Your task to perform on an android device: Search for "dell alienware" on newegg.com, select the first entry, and add it to the cart. Image 0: 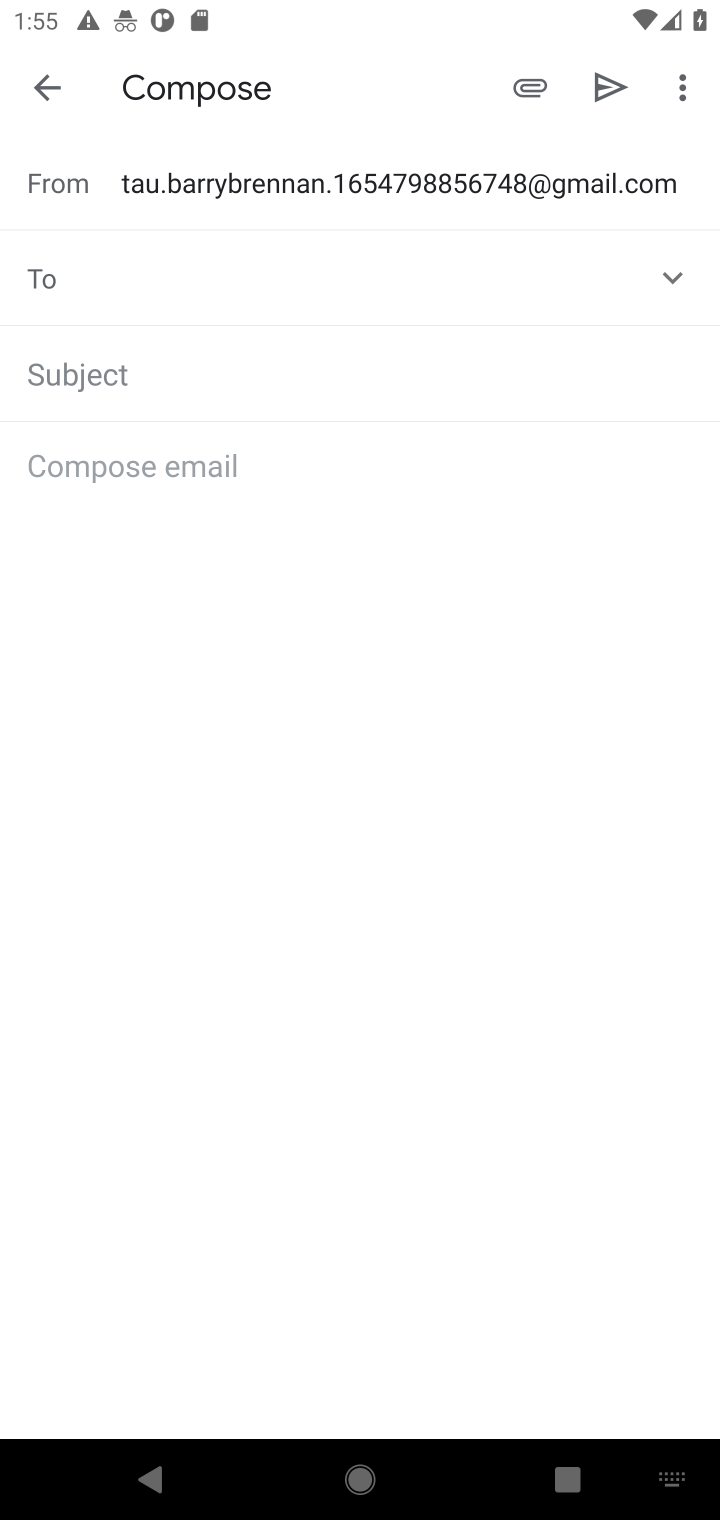
Step 0: press home button
Your task to perform on an android device: Search for "dell alienware" on newegg.com, select the first entry, and add it to the cart. Image 1: 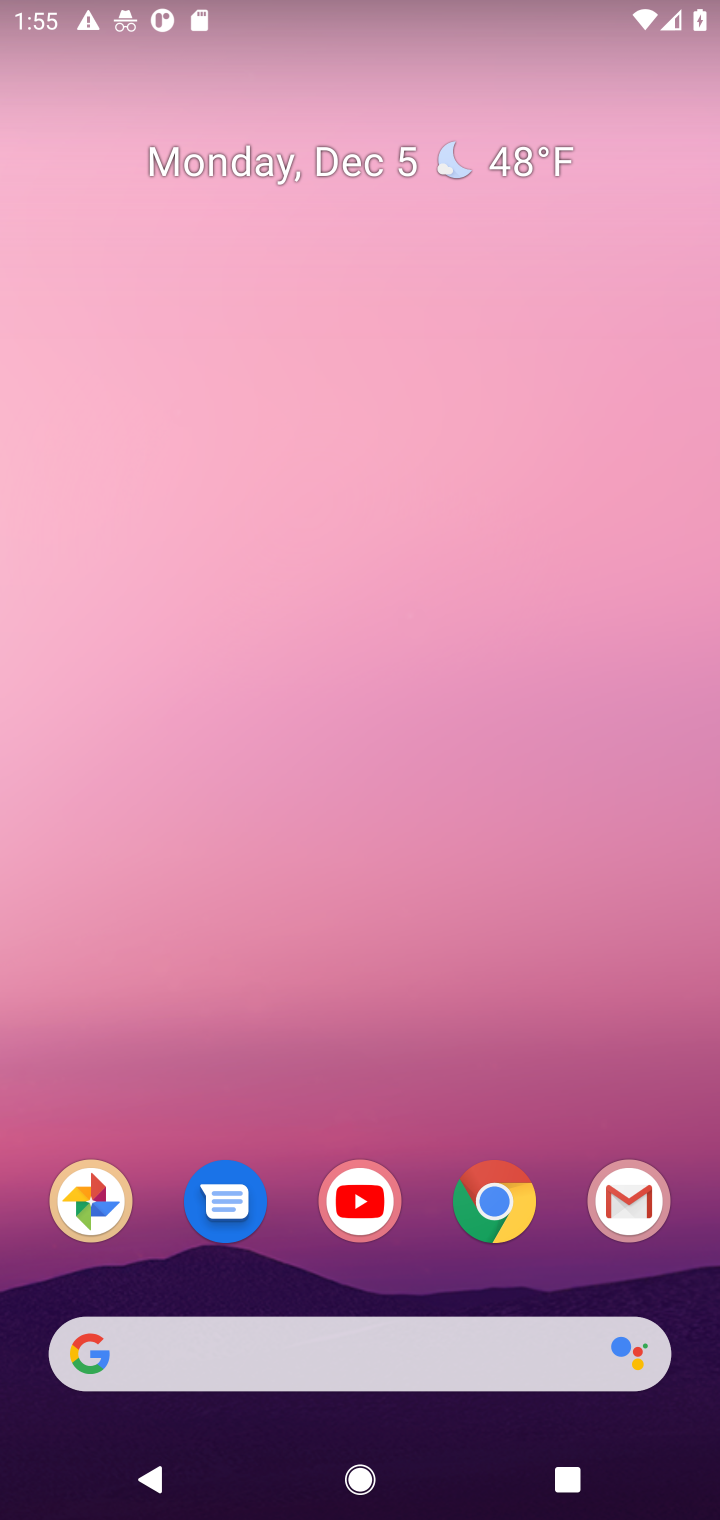
Step 1: click (505, 1207)
Your task to perform on an android device: Search for "dell alienware" on newegg.com, select the first entry, and add it to the cart. Image 2: 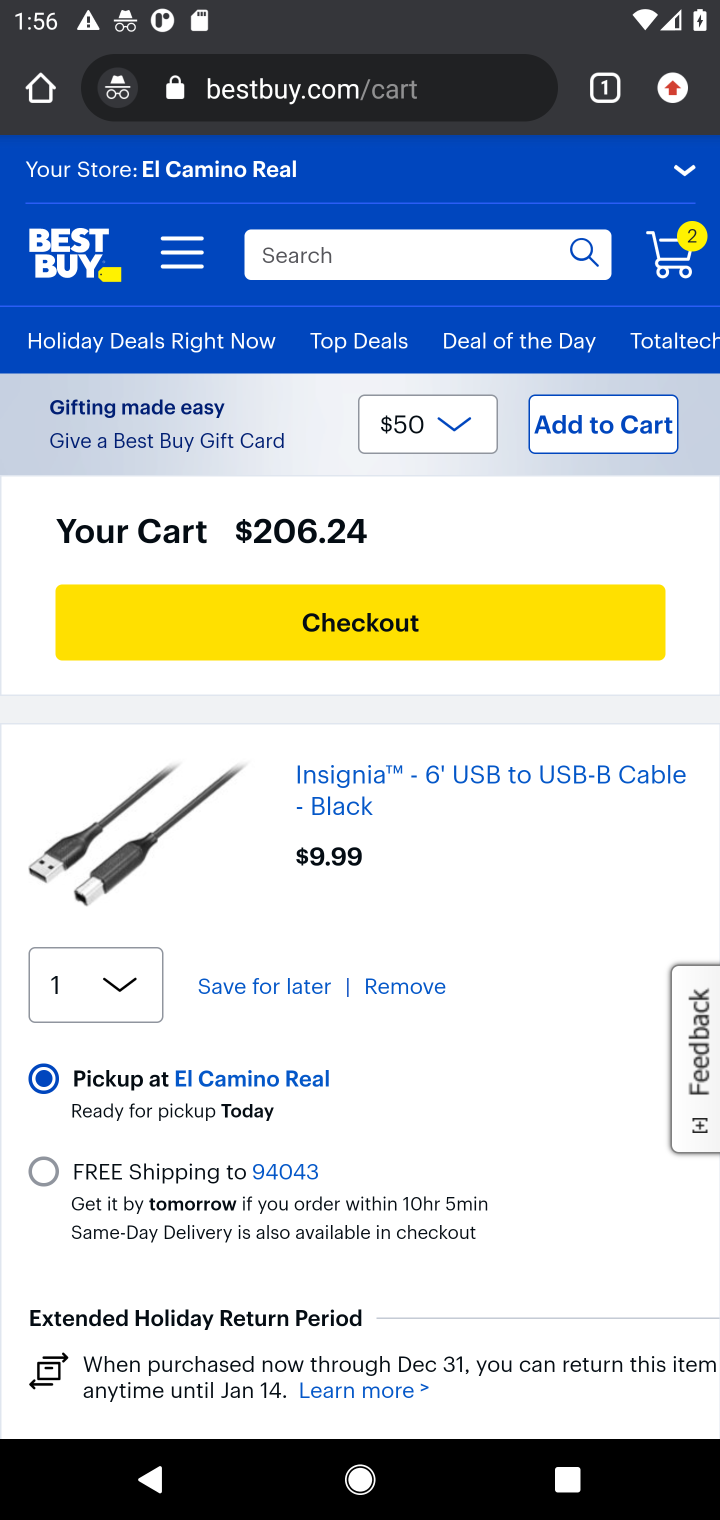
Step 2: click (331, 97)
Your task to perform on an android device: Search for "dell alienware" on newegg.com, select the first entry, and add it to the cart. Image 3: 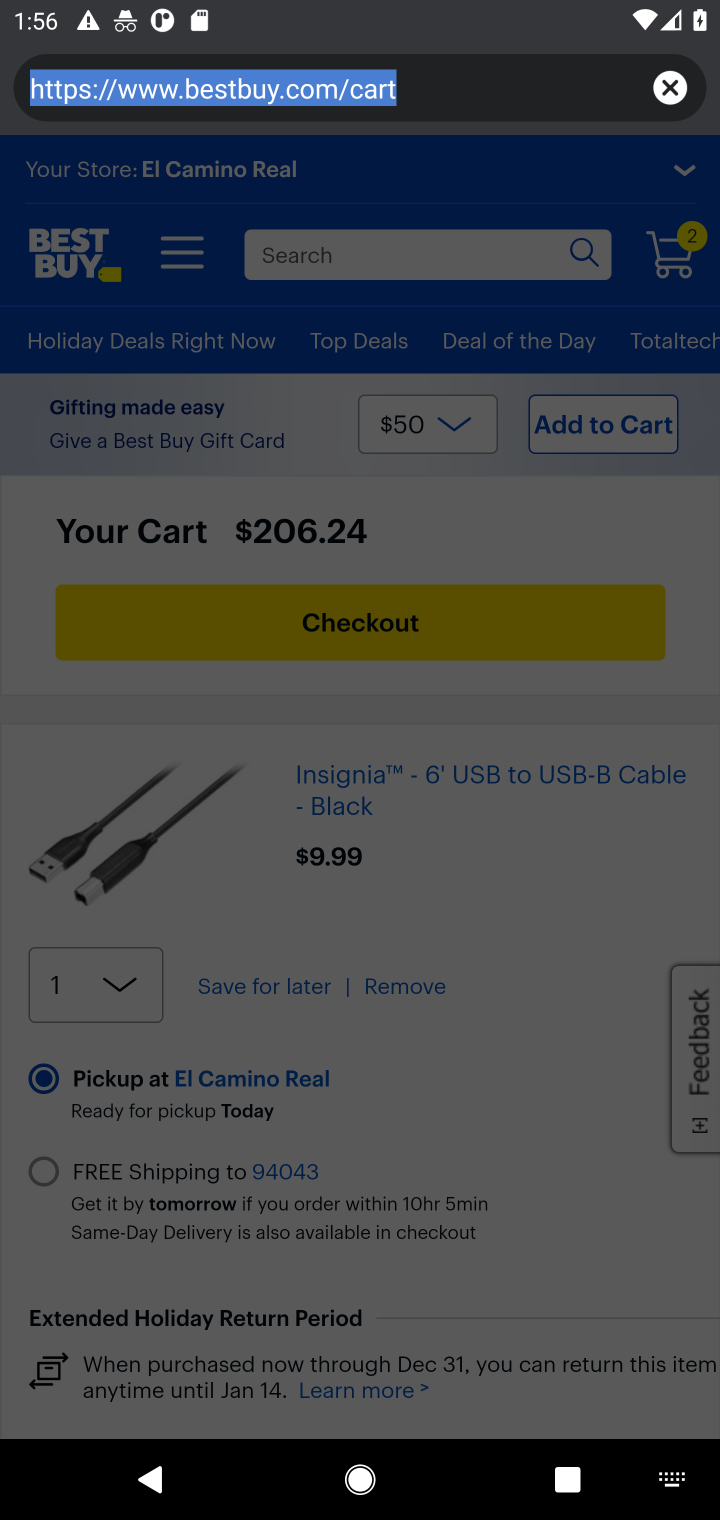
Step 3: click (658, 103)
Your task to perform on an android device: Search for "dell alienware" on newegg.com, select the first entry, and add it to the cart. Image 4: 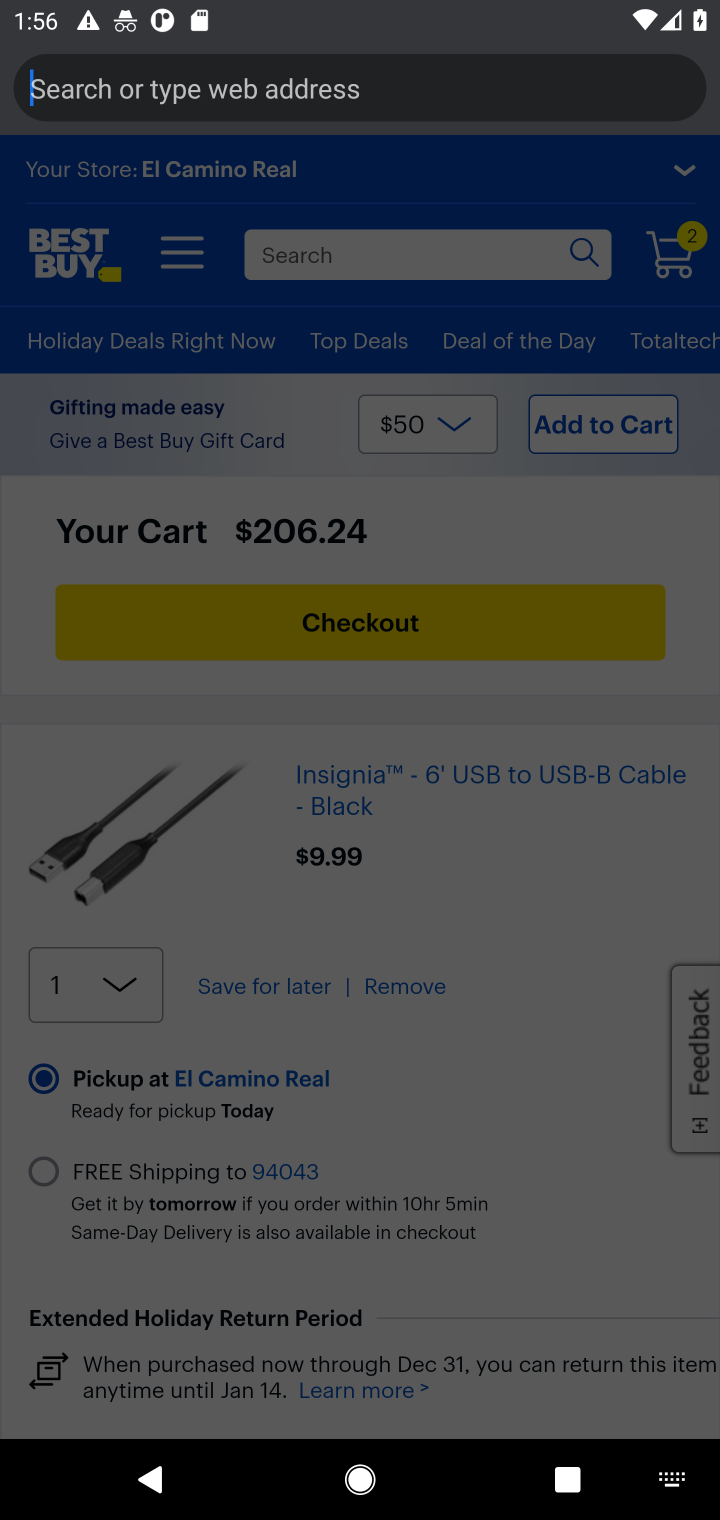
Step 4: type "newegg"
Your task to perform on an android device: Search for "dell alienware" on newegg.com, select the first entry, and add it to the cart. Image 5: 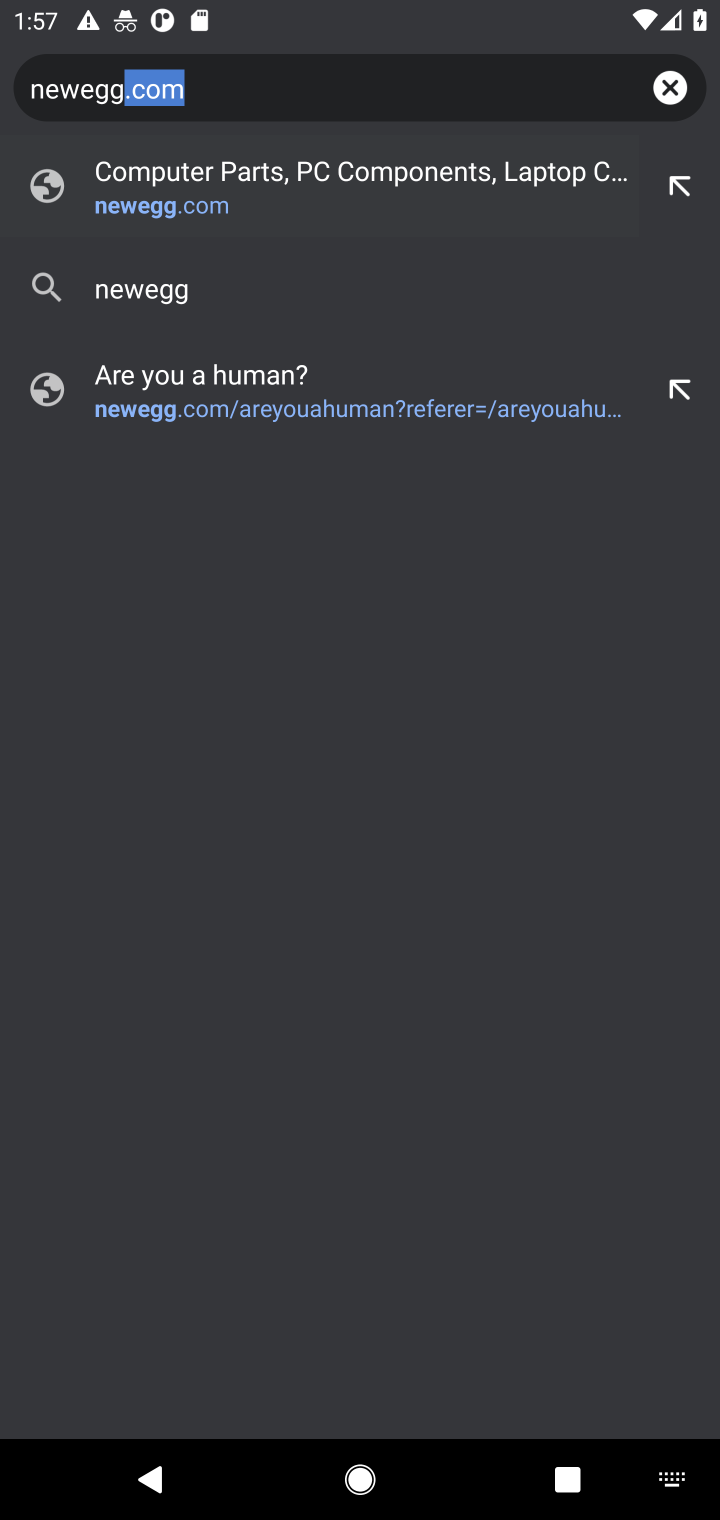
Step 5: click (230, 222)
Your task to perform on an android device: Search for "dell alienware" on newegg.com, select the first entry, and add it to the cart. Image 6: 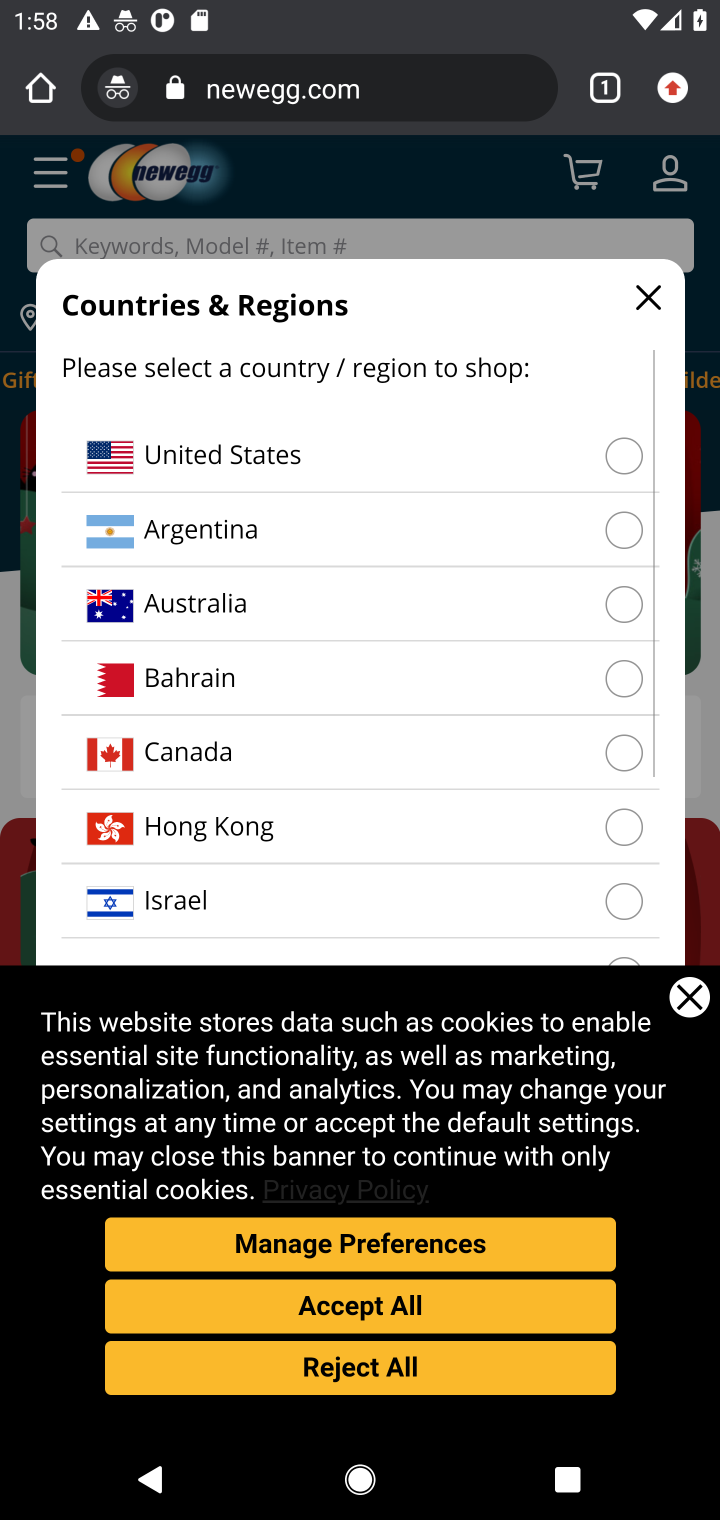
Step 6: click (526, 1294)
Your task to perform on an android device: Search for "dell alienware" on newegg.com, select the first entry, and add it to the cart. Image 7: 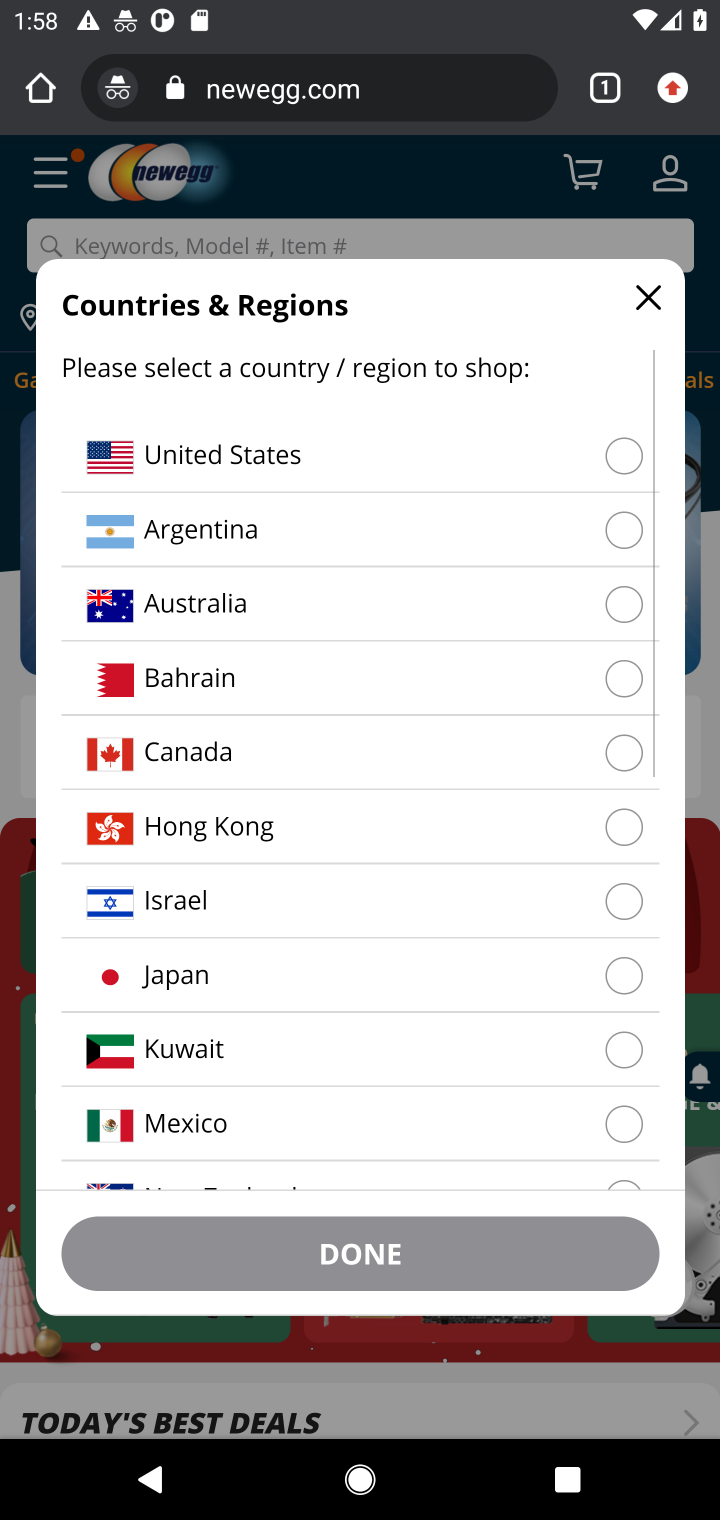
Step 7: click (376, 846)
Your task to perform on an android device: Search for "dell alienware" on newegg.com, select the first entry, and add it to the cart. Image 8: 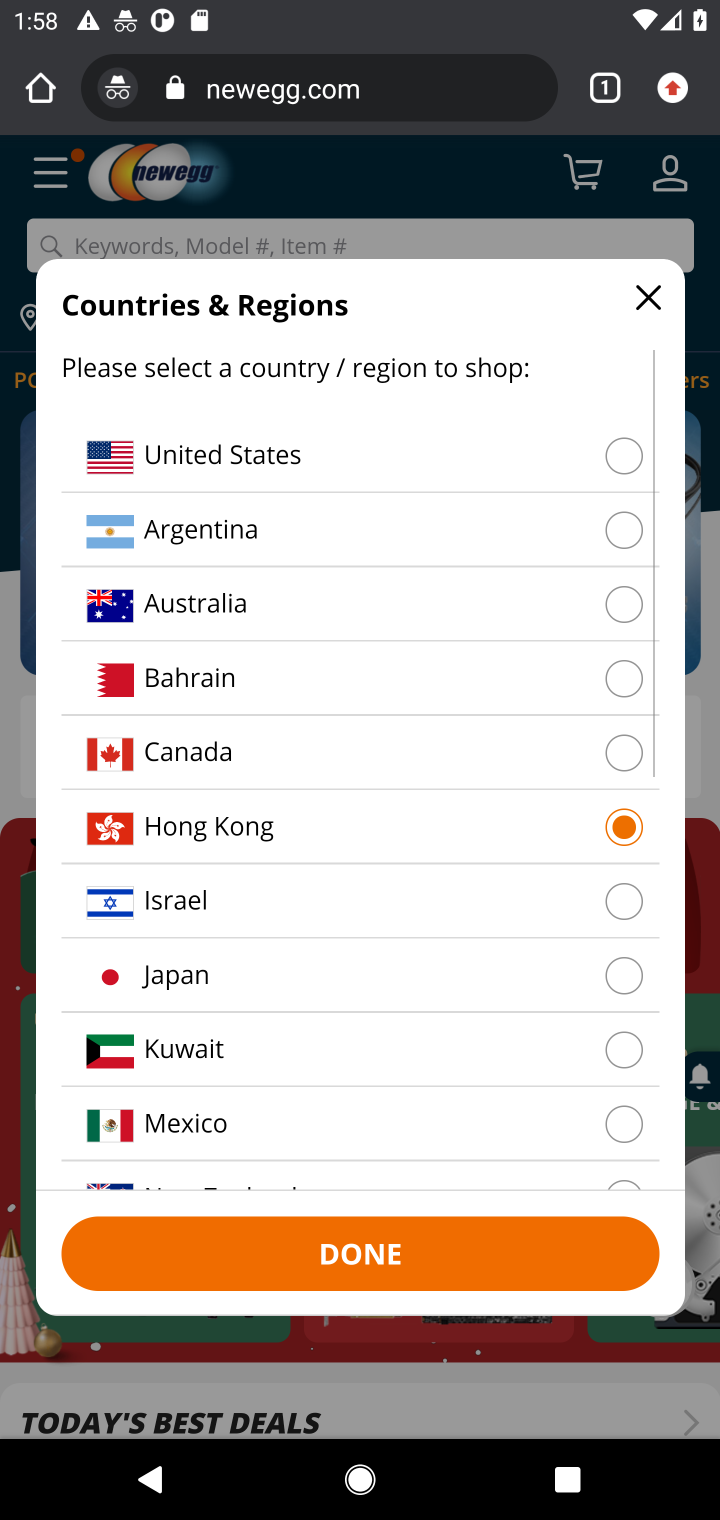
Step 8: click (329, 1239)
Your task to perform on an android device: Search for "dell alienware" on newegg.com, select the first entry, and add it to the cart. Image 9: 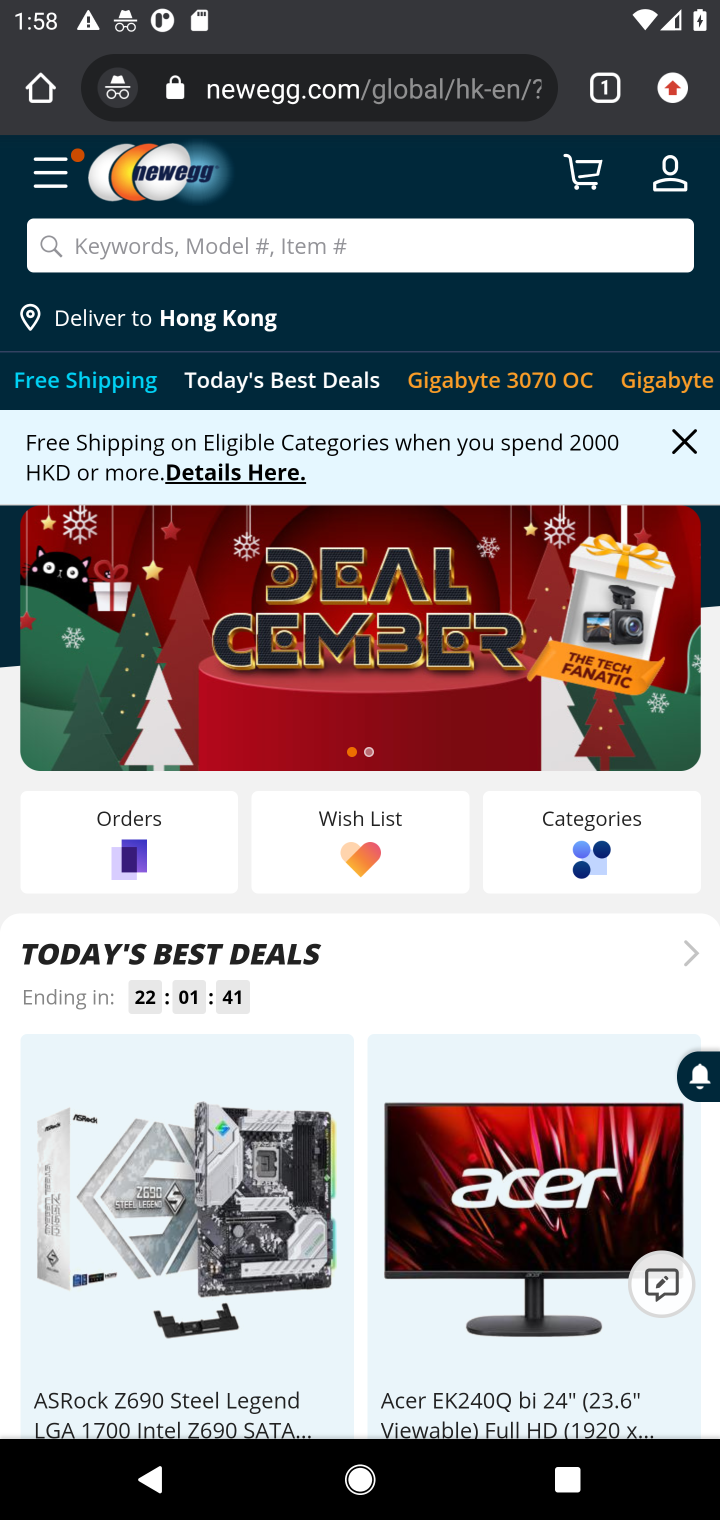
Step 9: click (204, 1074)
Your task to perform on an android device: Search for "dell alienware" on newegg.com, select the first entry, and add it to the cart. Image 10: 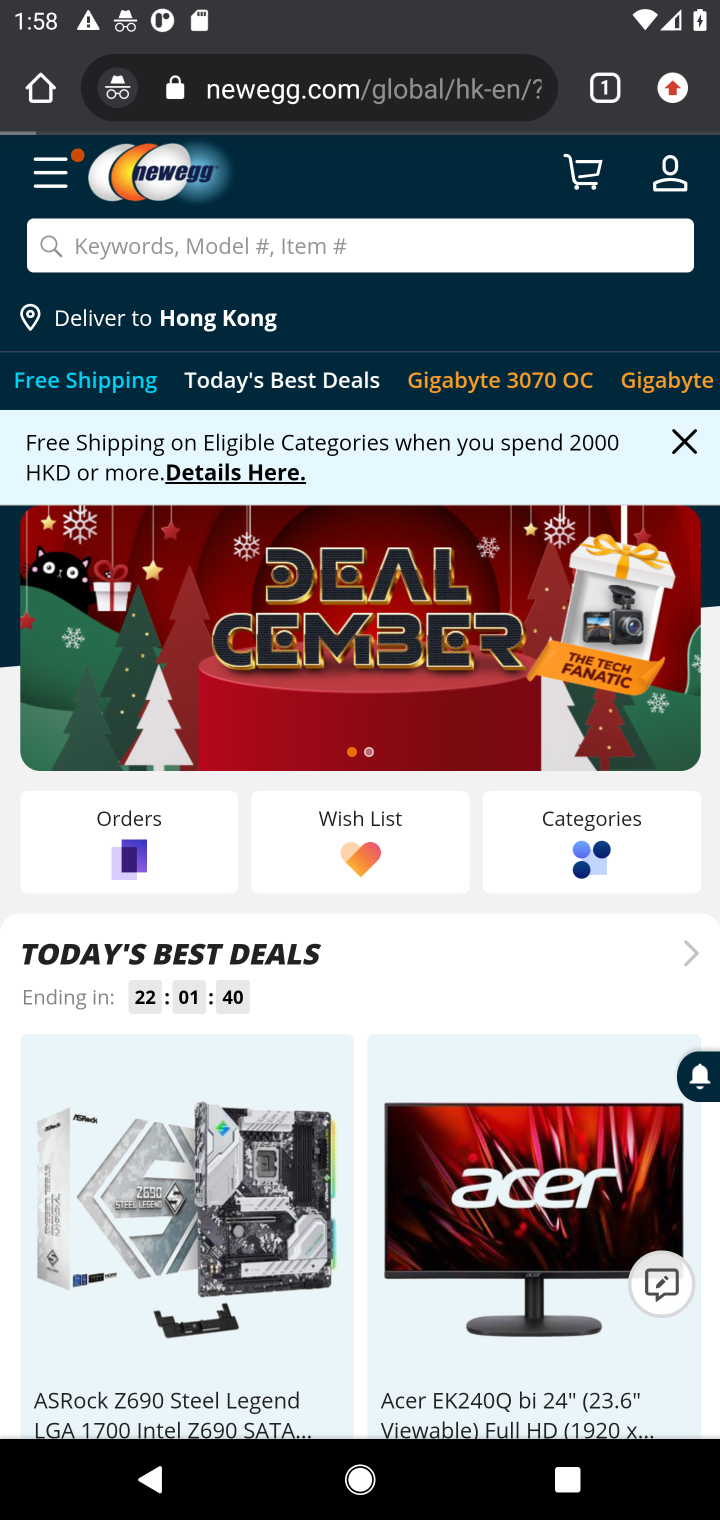
Step 10: click (411, 1076)
Your task to perform on an android device: Search for "dell alienware" on newegg.com, select the first entry, and add it to the cart. Image 11: 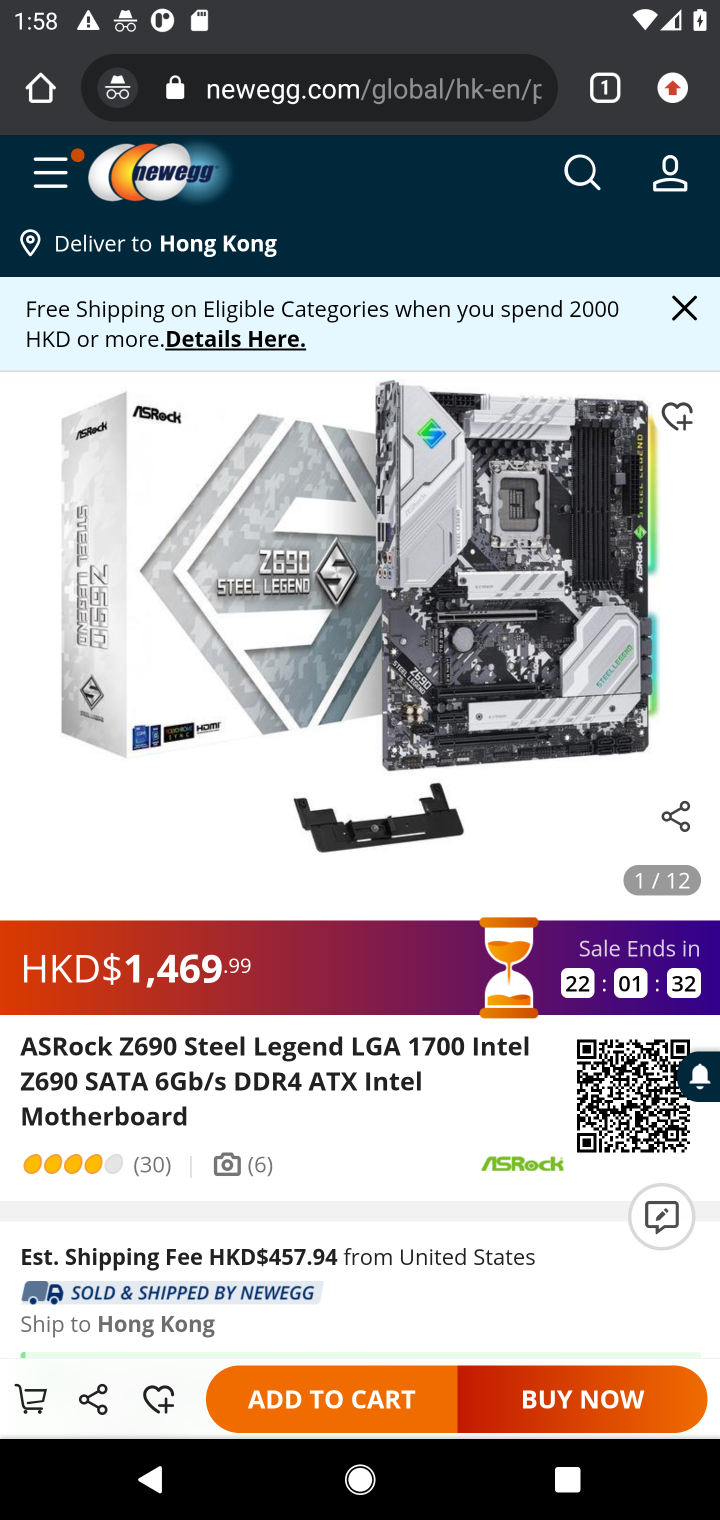
Step 11: click (582, 168)
Your task to perform on an android device: Search for "dell alienware" on newegg.com, select the first entry, and add it to the cart. Image 12: 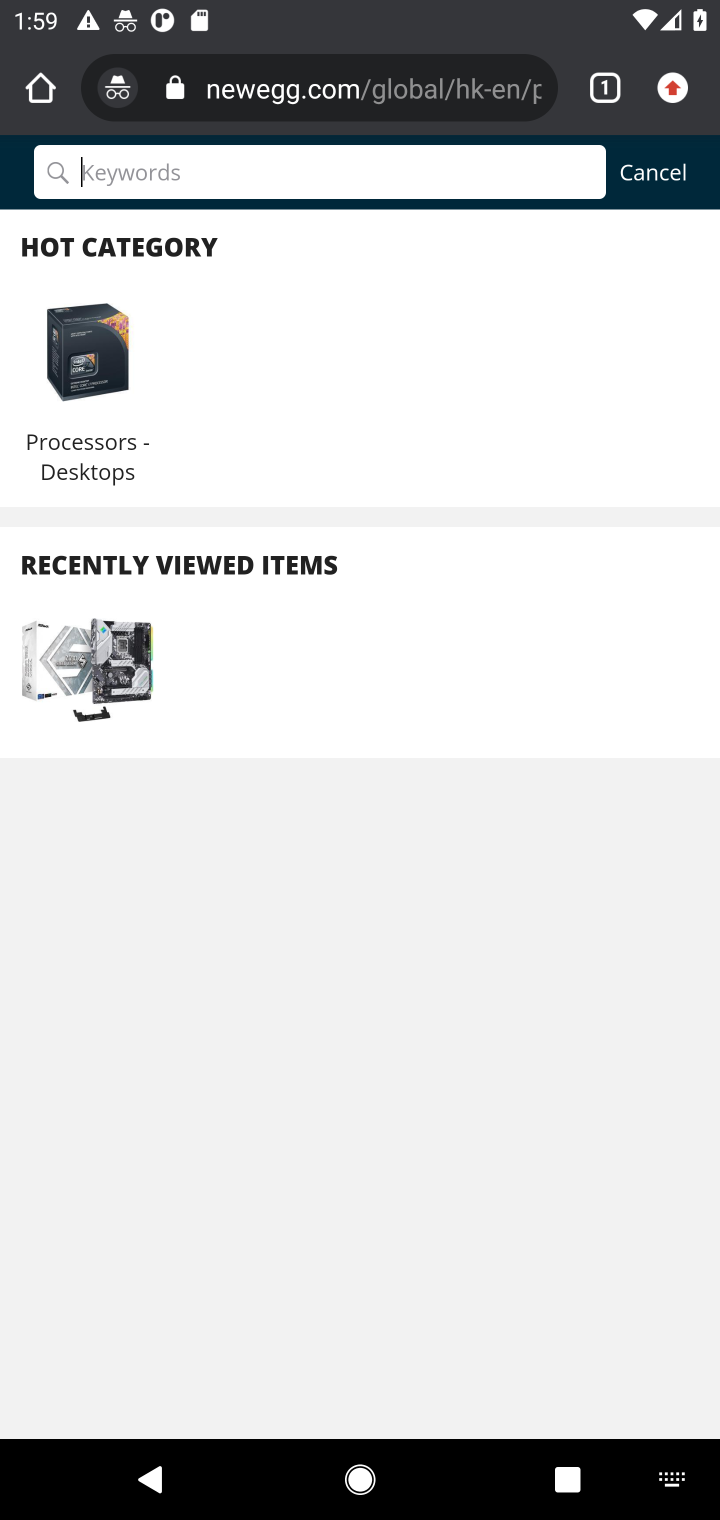
Step 12: type "dell alienware"
Your task to perform on an android device: Search for "dell alienware" on newegg.com, select the first entry, and add it to the cart. Image 13: 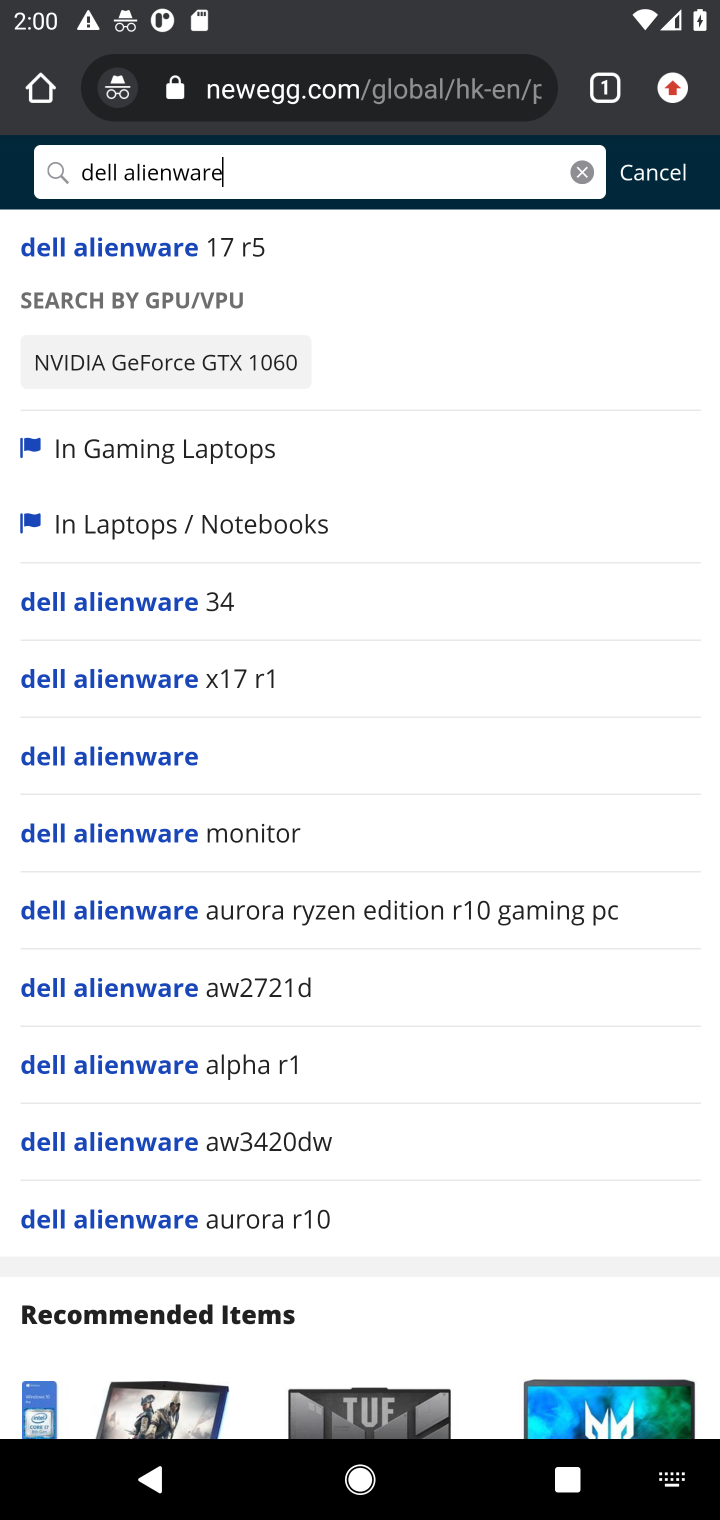
Step 13: click (193, 749)
Your task to perform on an android device: Search for "dell alienware" on newegg.com, select the first entry, and add it to the cart. Image 14: 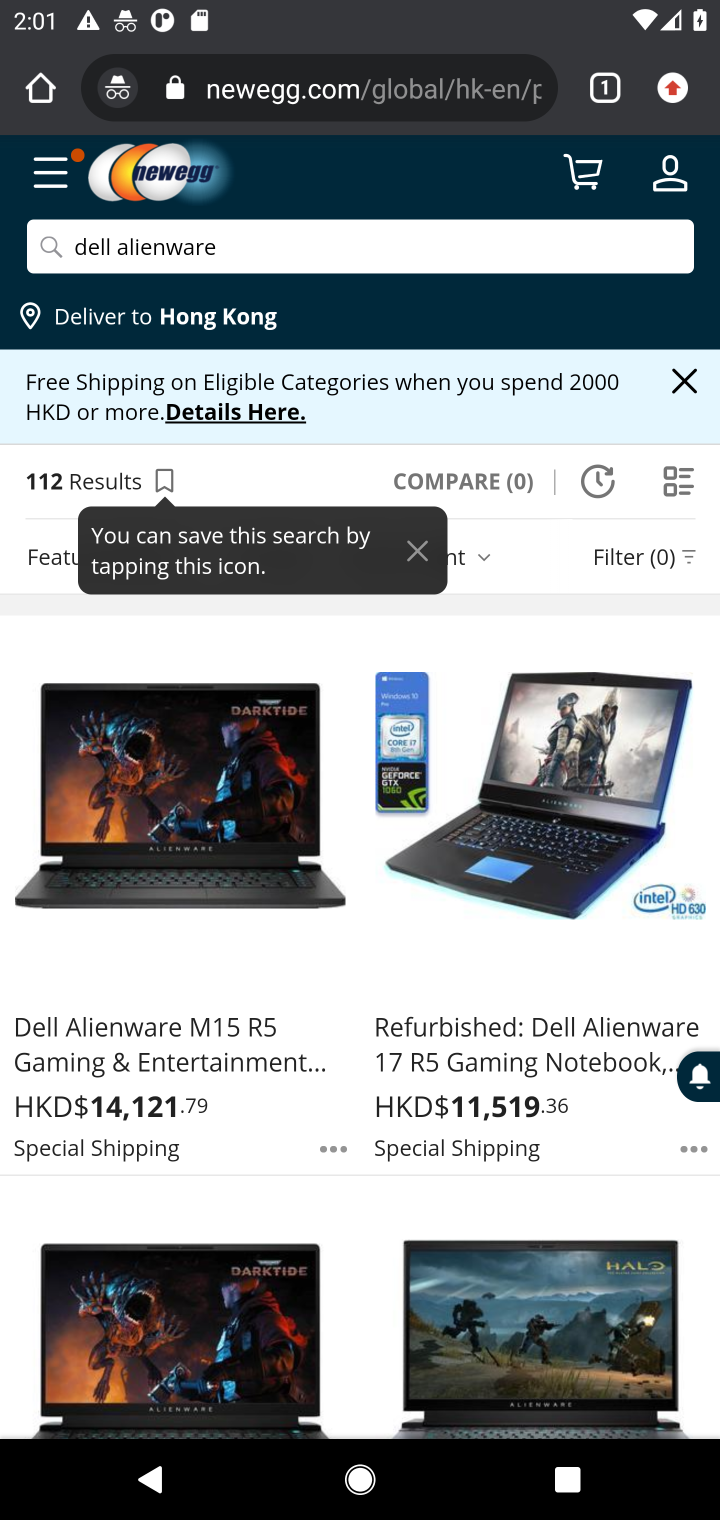
Step 14: click (219, 1025)
Your task to perform on an android device: Search for "dell alienware" on newegg.com, select the first entry, and add it to the cart. Image 15: 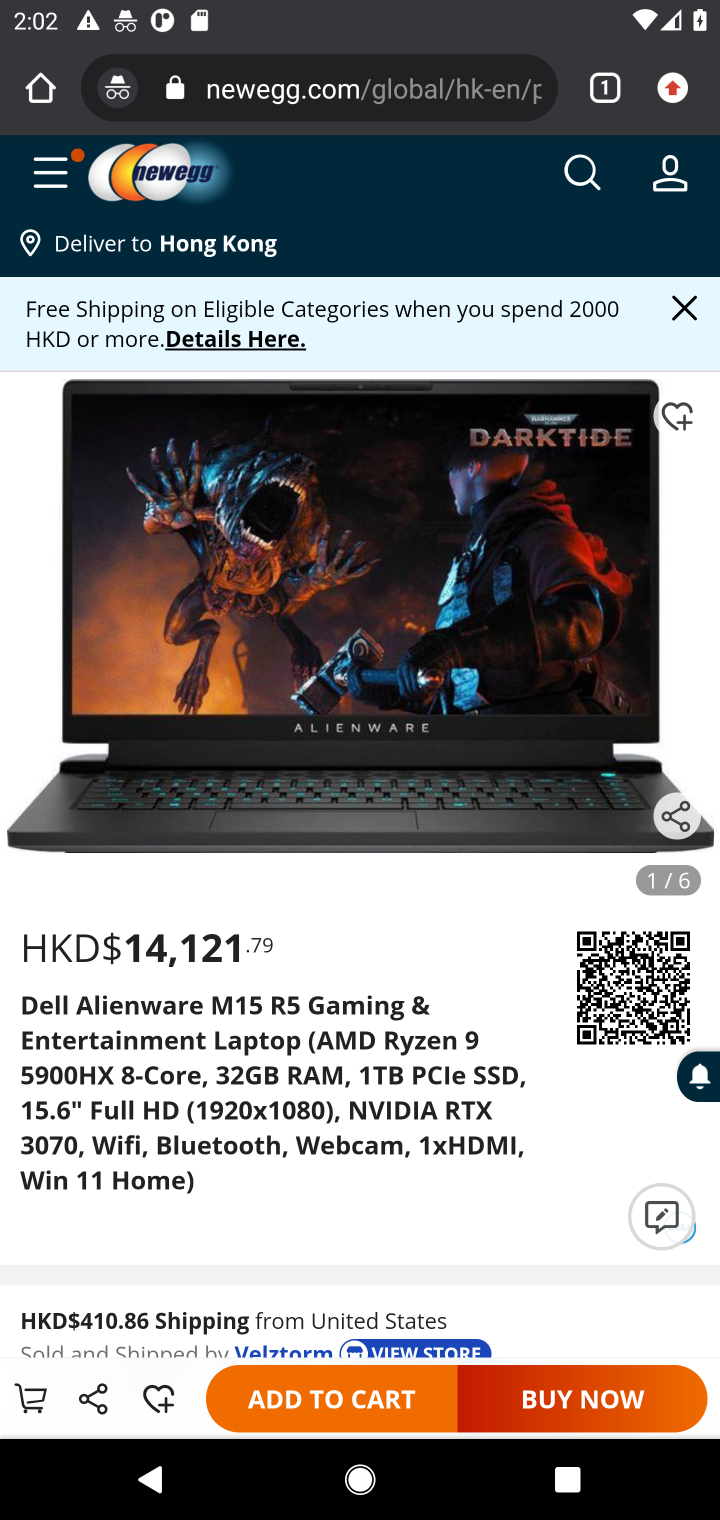
Step 15: click (357, 1407)
Your task to perform on an android device: Search for "dell alienware" on newegg.com, select the first entry, and add it to the cart. Image 16: 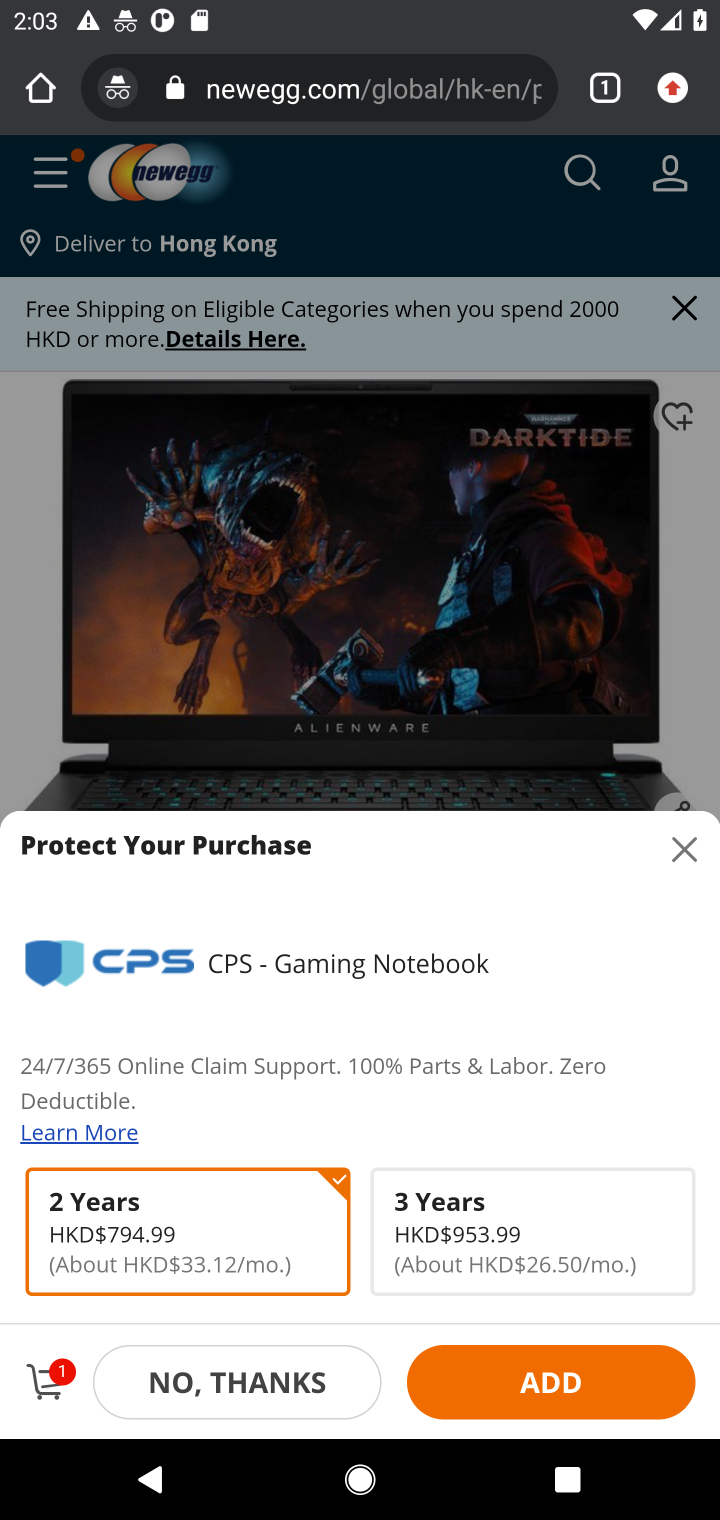
Step 16: task complete